Your task to perform on an android device: Go to wifi settings Image 0: 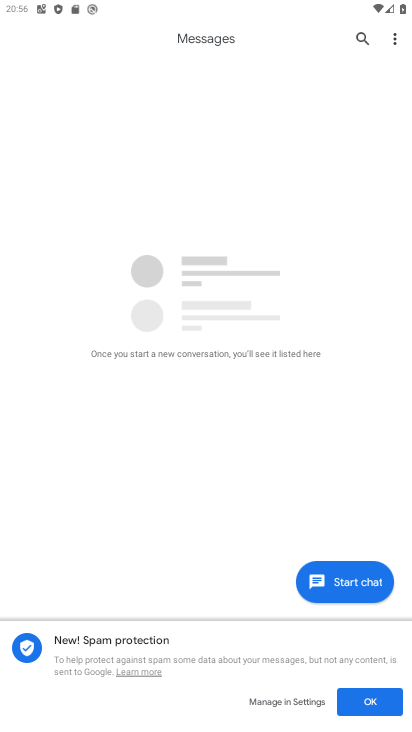
Step 0: press back button
Your task to perform on an android device: Go to wifi settings Image 1: 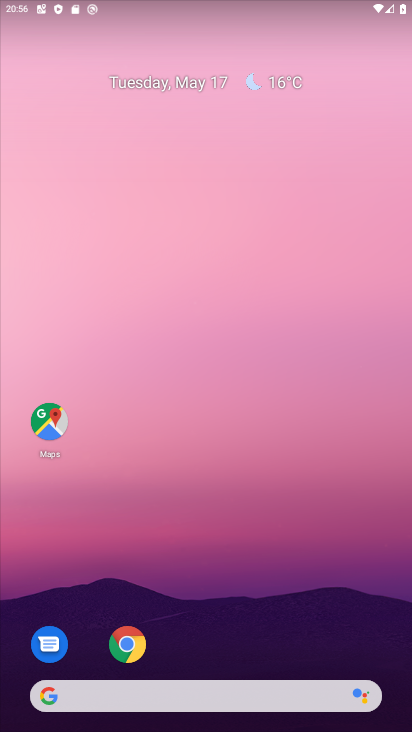
Step 1: drag from (43, 4) to (101, 640)
Your task to perform on an android device: Go to wifi settings Image 2: 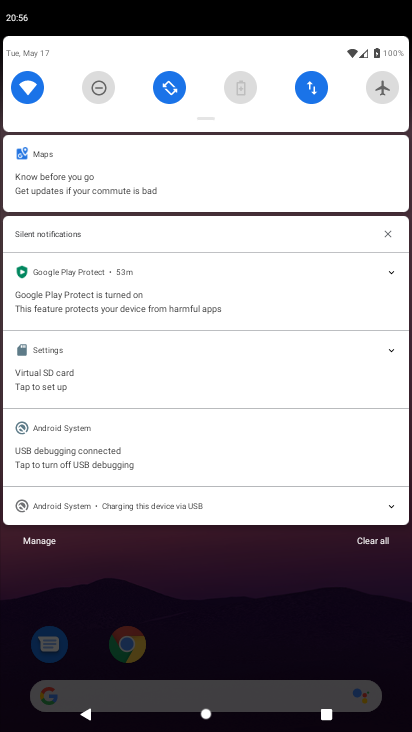
Step 2: click (25, 84)
Your task to perform on an android device: Go to wifi settings Image 3: 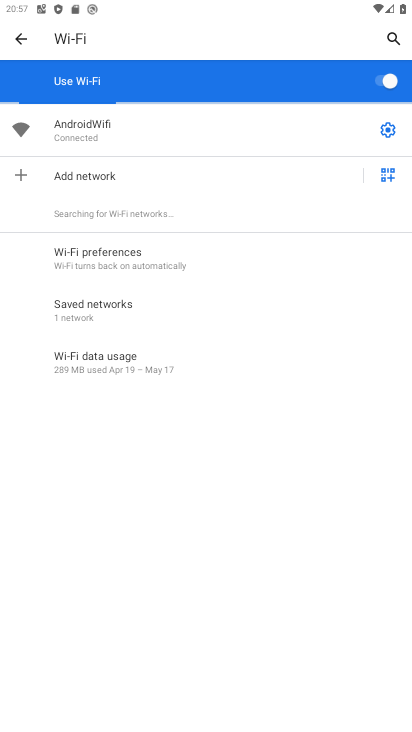
Step 3: task complete